Your task to perform on an android device: Go to settings Image 0: 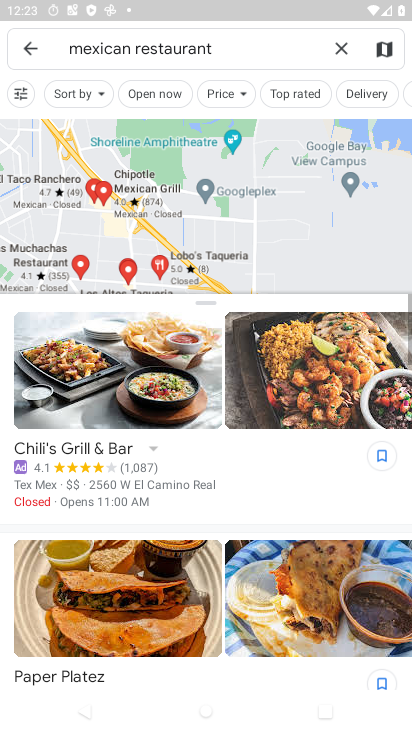
Step 0: press home button
Your task to perform on an android device: Go to settings Image 1: 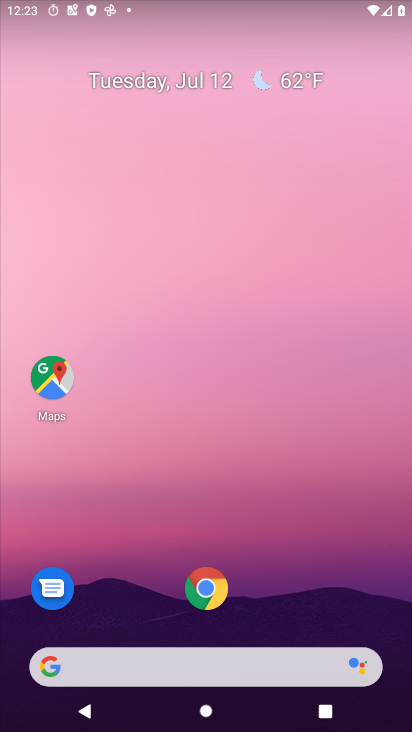
Step 1: drag from (169, 602) to (130, 35)
Your task to perform on an android device: Go to settings Image 2: 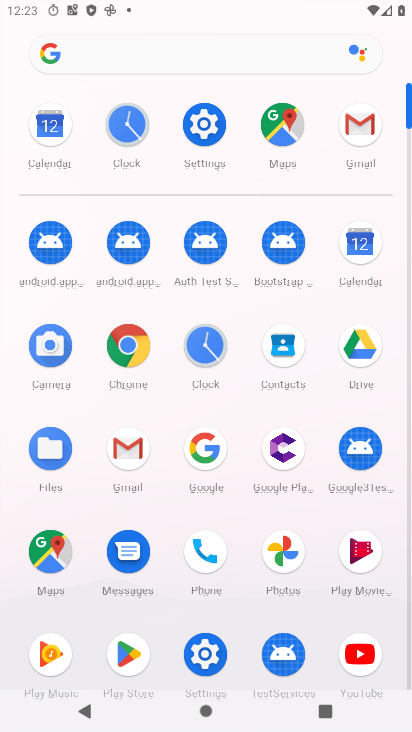
Step 2: click (207, 124)
Your task to perform on an android device: Go to settings Image 3: 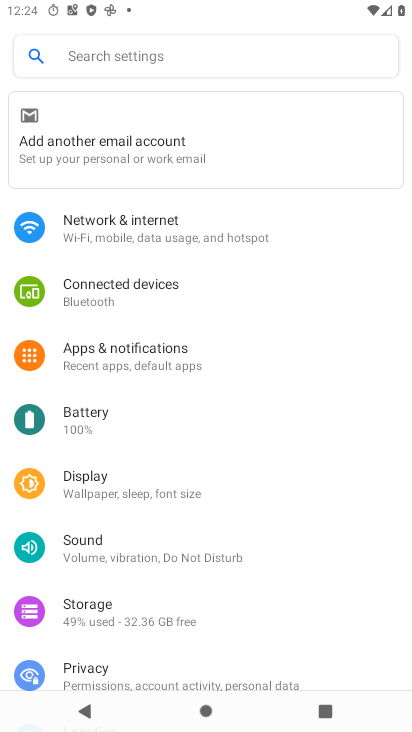
Step 3: task complete